Your task to perform on an android device: stop showing notifications on the lock screen Image 0: 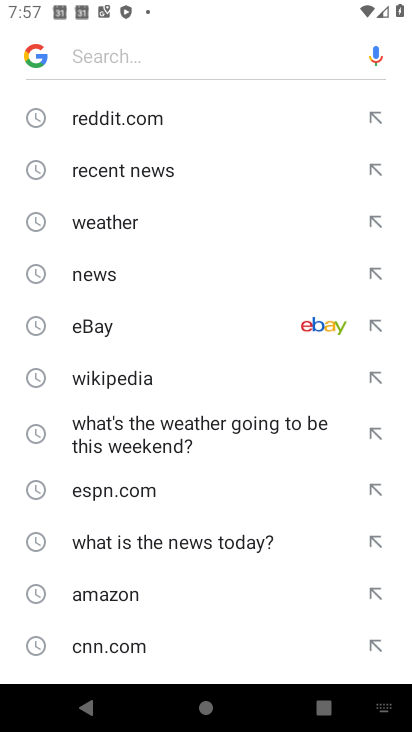
Step 0: press home button
Your task to perform on an android device: stop showing notifications on the lock screen Image 1: 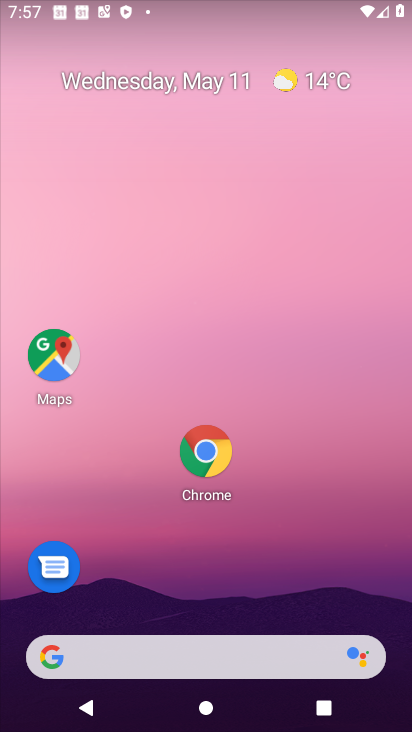
Step 1: drag from (157, 649) to (253, 214)
Your task to perform on an android device: stop showing notifications on the lock screen Image 2: 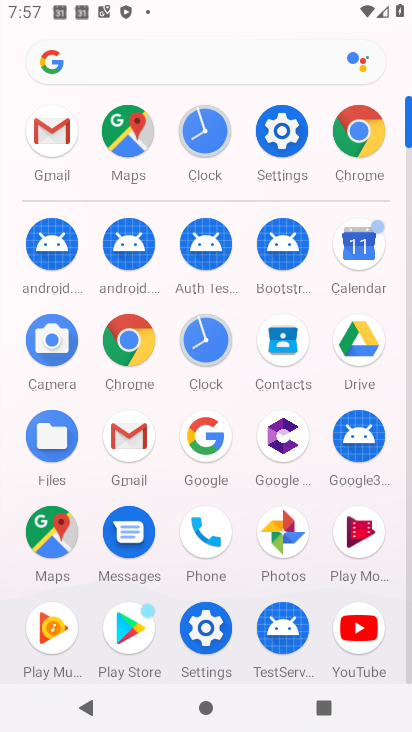
Step 2: click (279, 138)
Your task to perform on an android device: stop showing notifications on the lock screen Image 3: 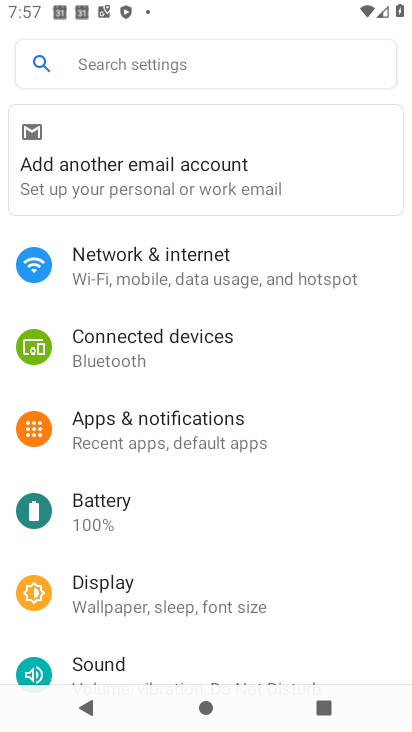
Step 3: click (185, 420)
Your task to perform on an android device: stop showing notifications on the lock screen Image 4: 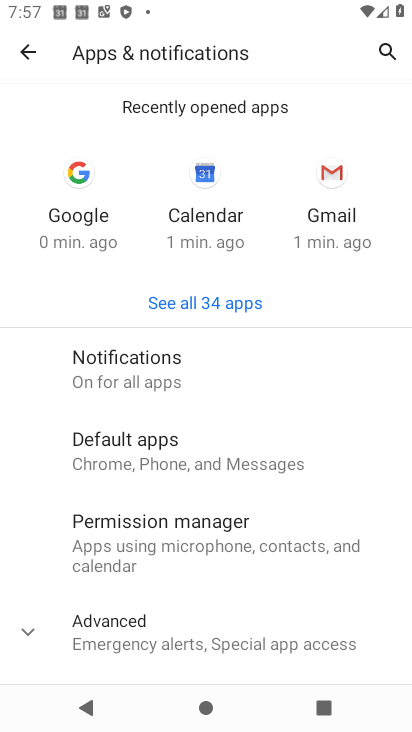
Step 4: click (142, 359)
Your task to perform on an android device: stop showing notifications on the lock screen Image 5: 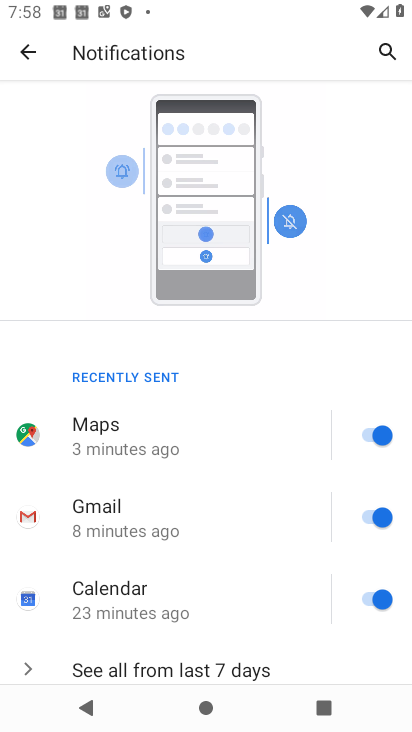
Step 5: drag from (198, 606) to (332, 231)
Your task to perform on an android device: stop showing notifications on the lock screen Image 6: 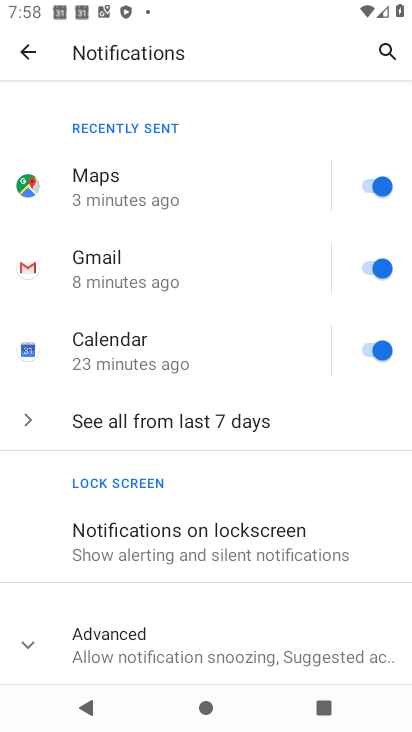
Step 6: click (206, 541)
Your task to perform on an android device: stop showing notifications on the lock screen Image 7: 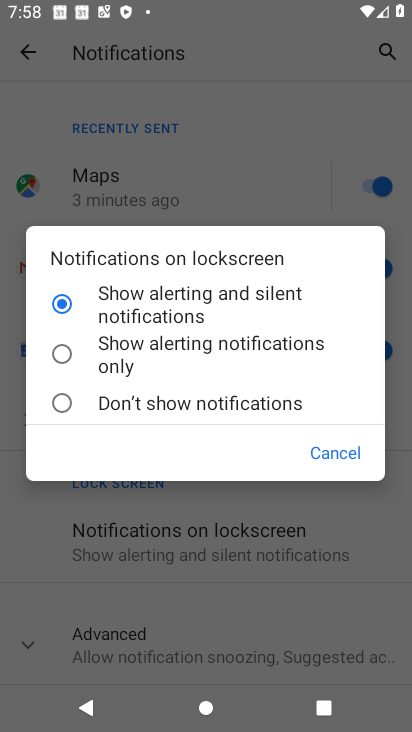
Step 7: click (56, 403)
Your task to perform on an android device: stop showing notifications on the lock screen Image 8: 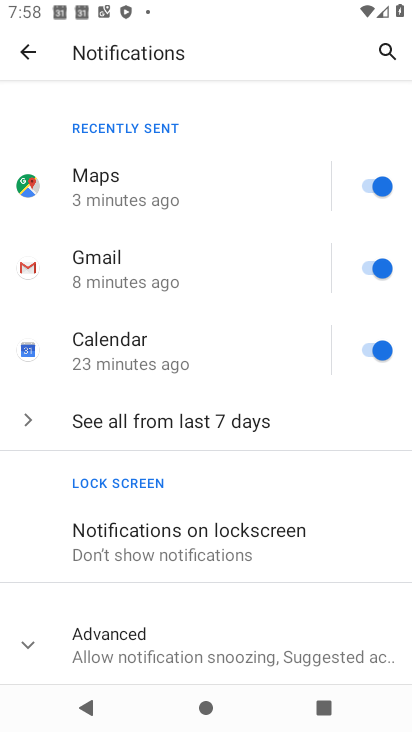
Step 8: task complete